Your task to perform on an android device: Show me popular videos on Youtube Image 0: 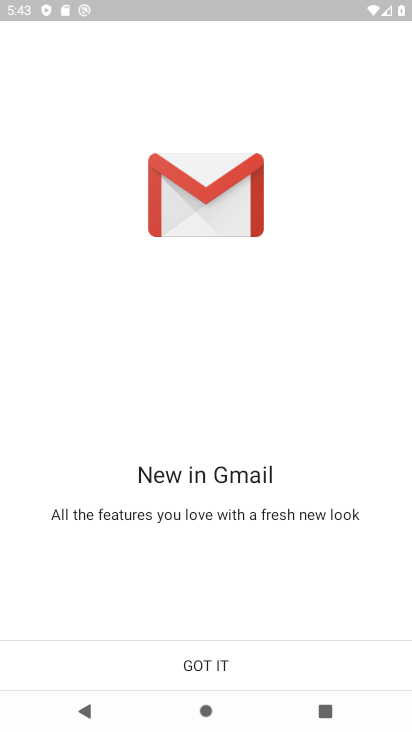
Step 0: press home button
Your task to perform on an android device: Show me popular videos on Youtube Image 1: 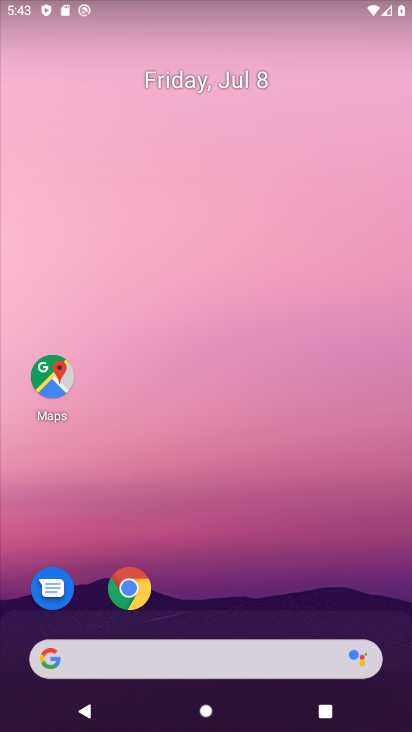
Step 1: drag from (231, 561) to (139, 18)
Your task to perform on an android device: Show me popular videos on Youtube Image 2: 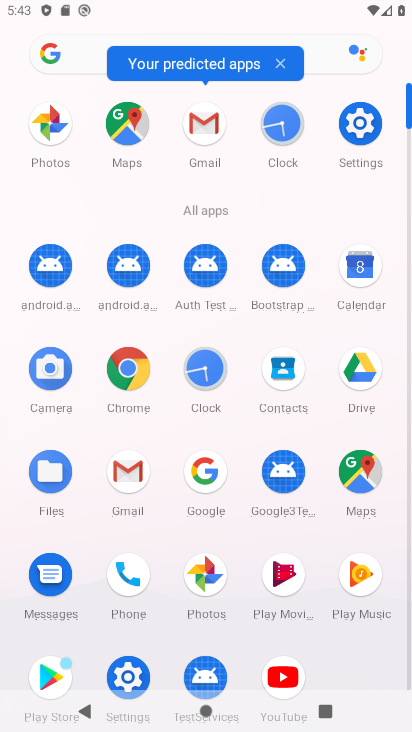
Step 2: click (284, 678)
Your task to perform on an android device: Show me popular videos on Youtube Image 3: 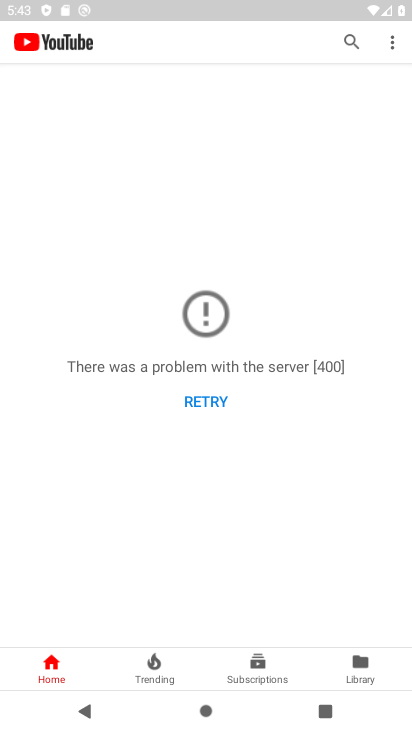
Step 3: click (351, 40)
Your task to perform on an android device: Show me popular videos on Youtube Image 4: 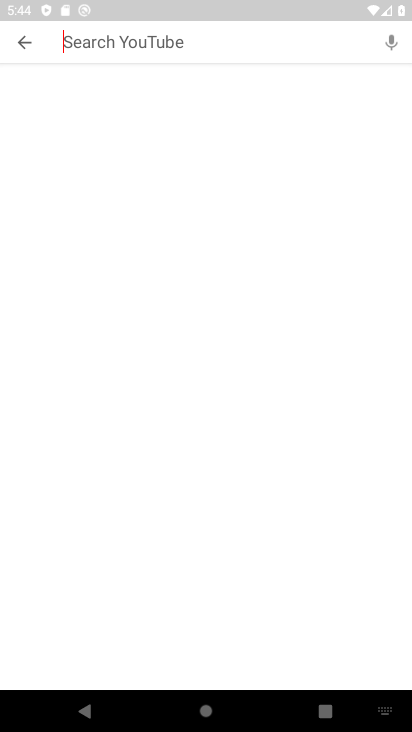
Step 4: type " popular videos on Youtube"
Your task to perform on an android device: Show me popular videos on Youtube Image 5: 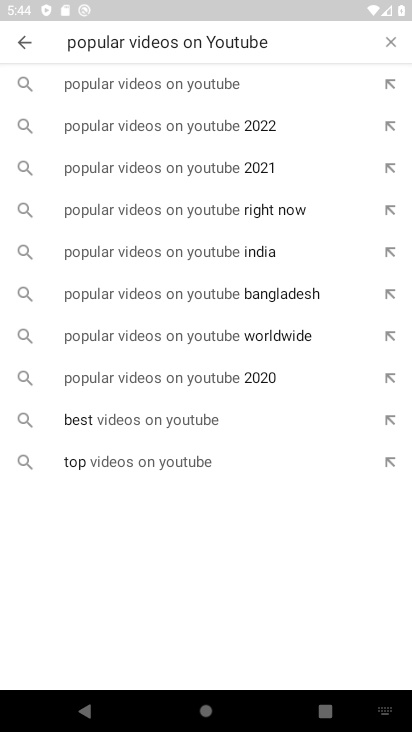
Step 5: click (79, 79)
Your task to perform on an android device: Show me popular videos on Youtube Image 6: 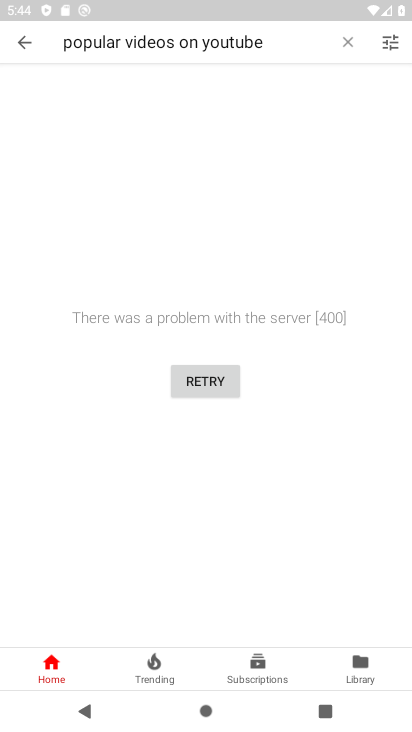
Step 6: task complete